Your task to perform on an android device: Open the web browser Image 0: 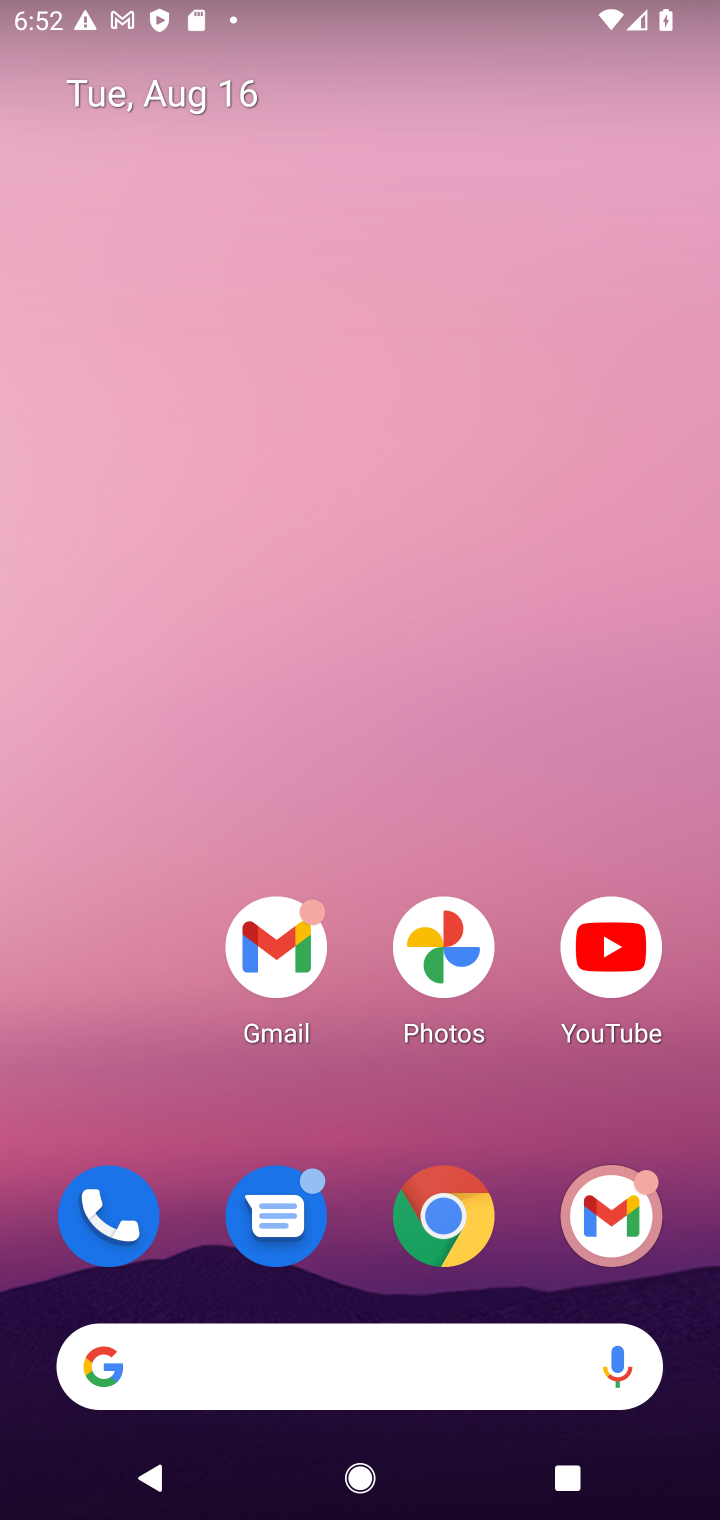
Step 0: drag from (161, 1019) to (171, 434)
Your task to perform on an android device: Open the web browser Image 1: 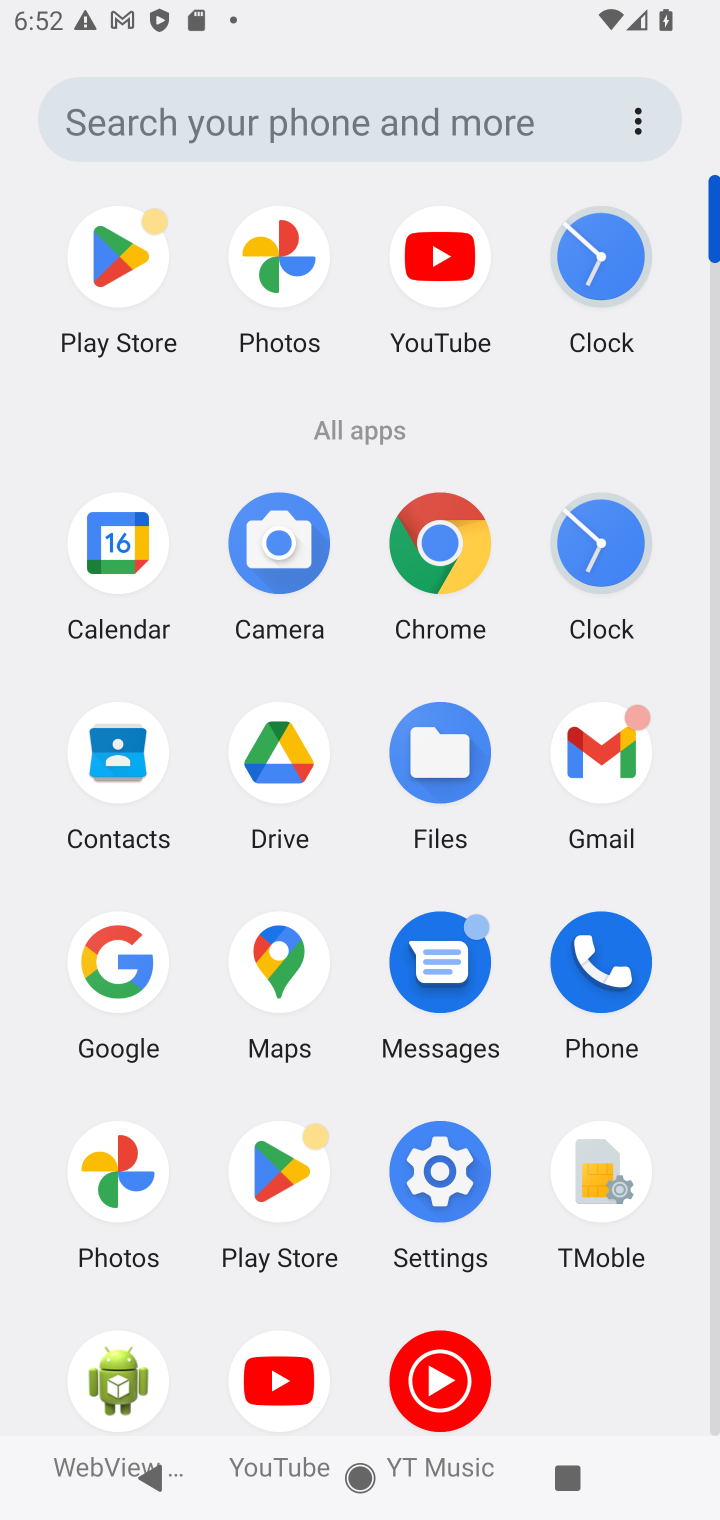
Step 1: click (443, 510)
Your task to perform on an android device: Open the web browser Image 2: 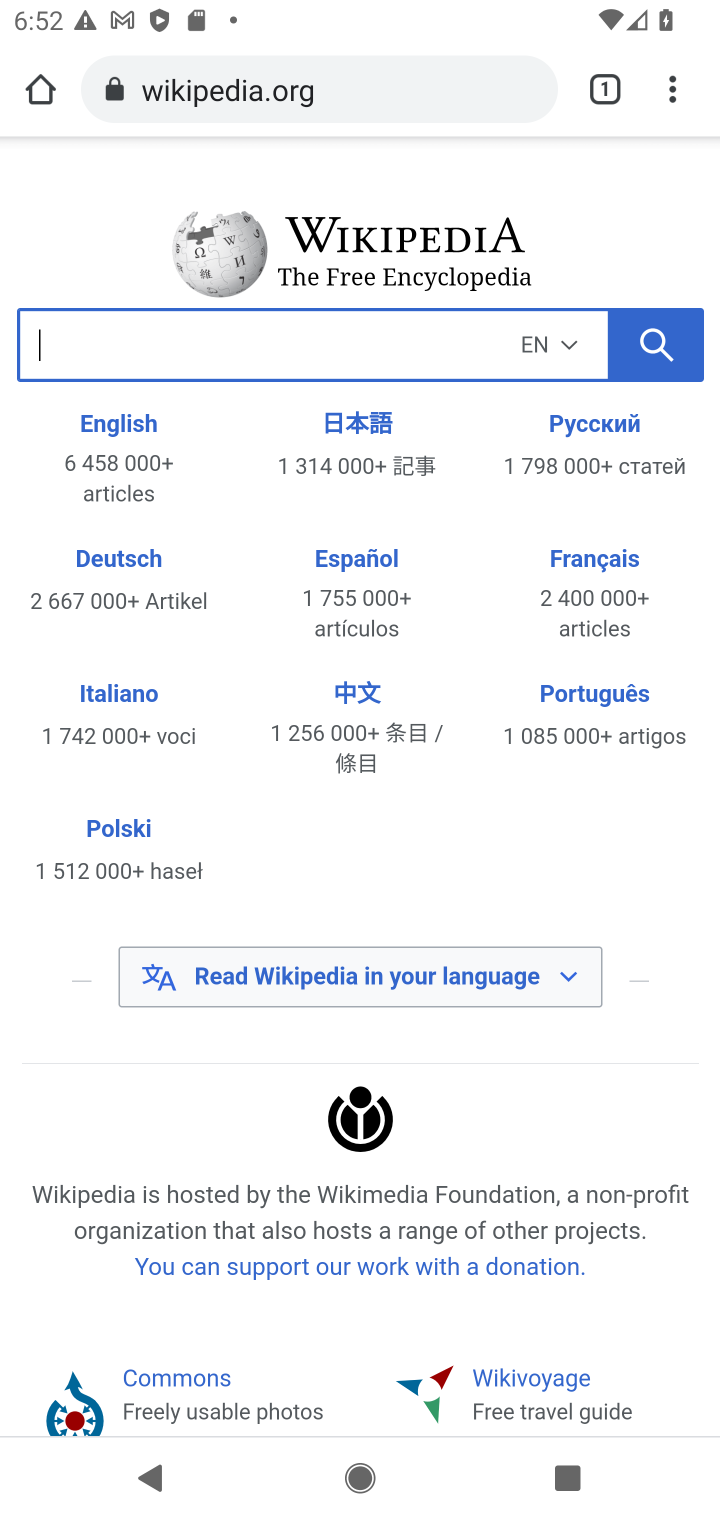
Step 2: task complete